Your task to perform on an android device: Go to ESPN.com Image 0: 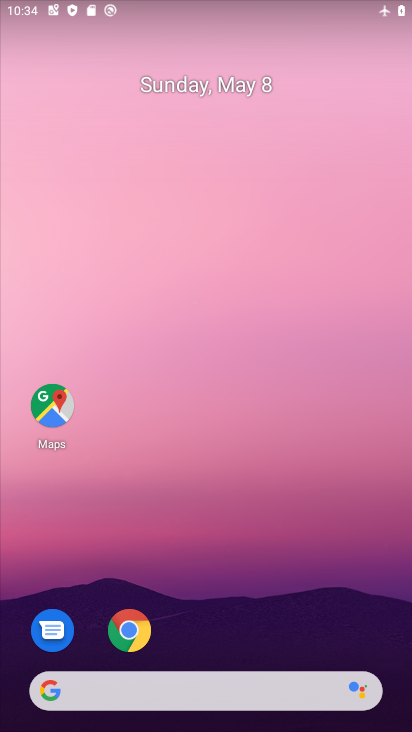
Step 0: click (133, 629)
Your task to perform on an android device: Go to ESPN.com Image 1: 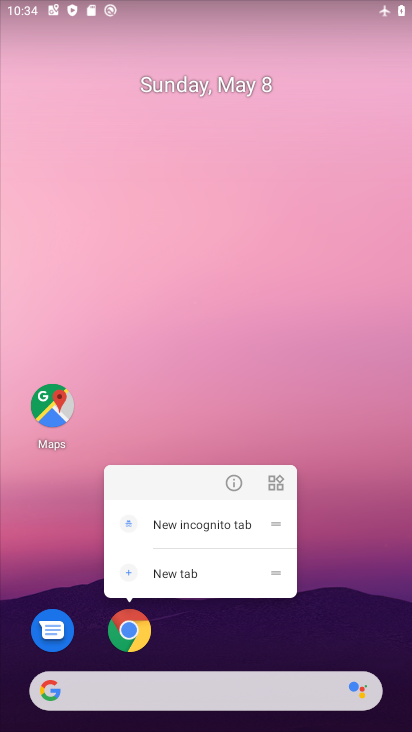
Step 1: click (148, 658)
Your task to perform on an android device: Go to ESPN.com Image 2: 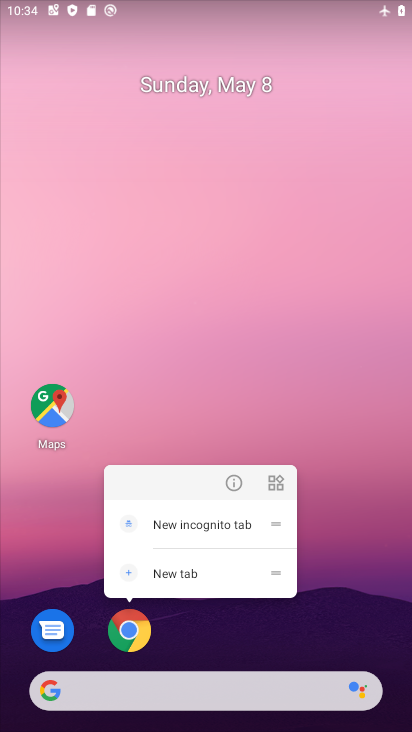
Step 2: click (148, 658)
Your task to perform on an android device: Go to ESPN.com Image 3: 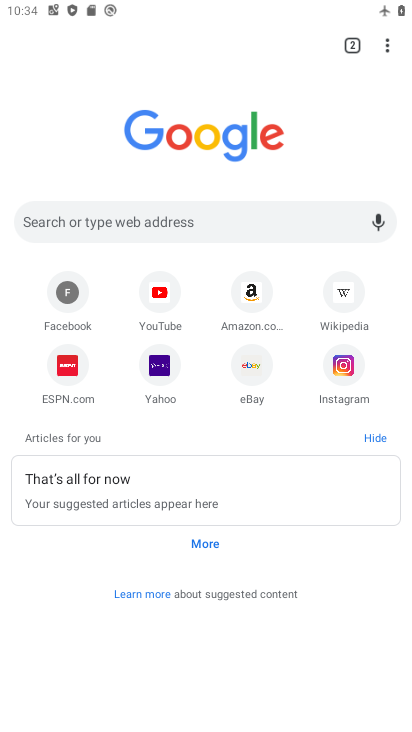
Step 3: click (80, 373)
Your task to perform on an android device: Go to ESPN.com Image 4: 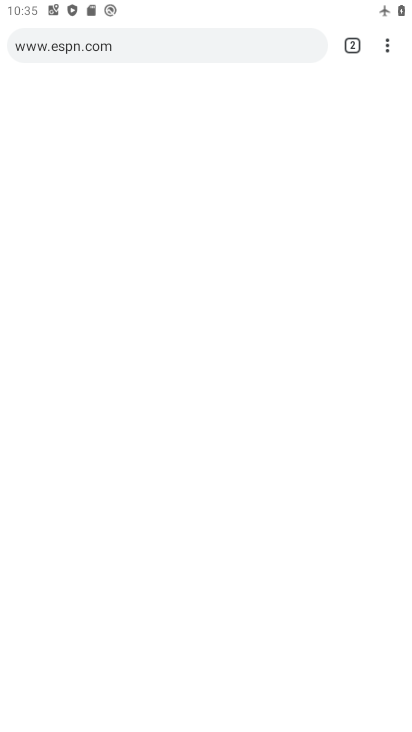
Step 4: click (80, 373)
Your task to perform on an android device: Go to ESPN.com Image 5: 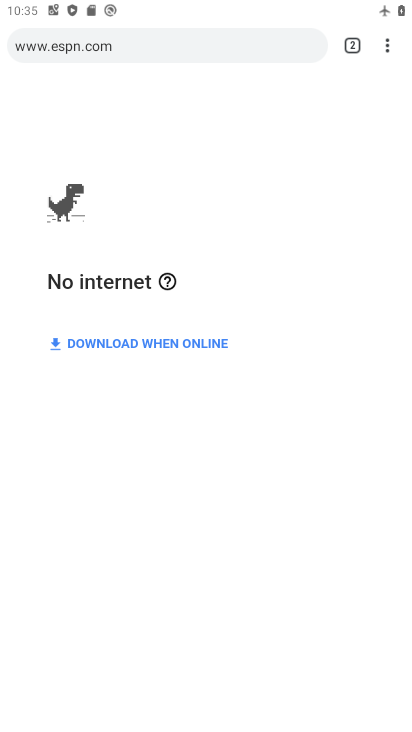
Step 5: task complete